Your task to perform on an android device: check battery use Image 0: 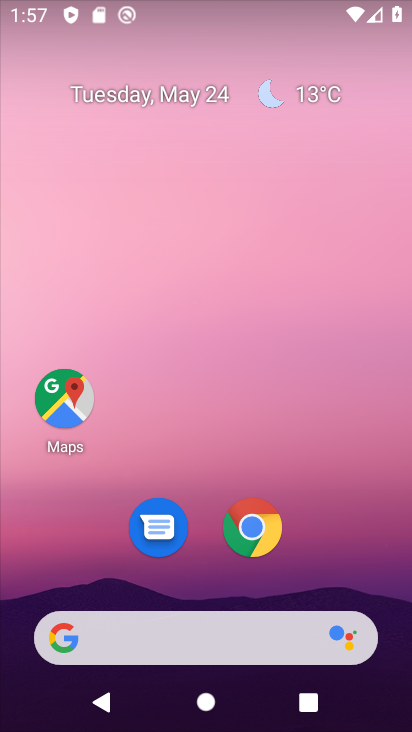
Step 0: drag from (300, 591) to (311, 69)
Your task to perform on an android device: check battery use Image 1: 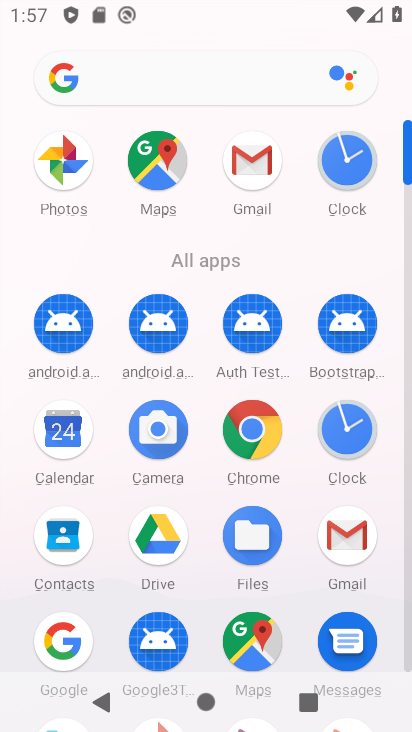
Step 1: drag from (215, 593) to (251, 359)
Your task to perform on an android device: check battery use Image 2: 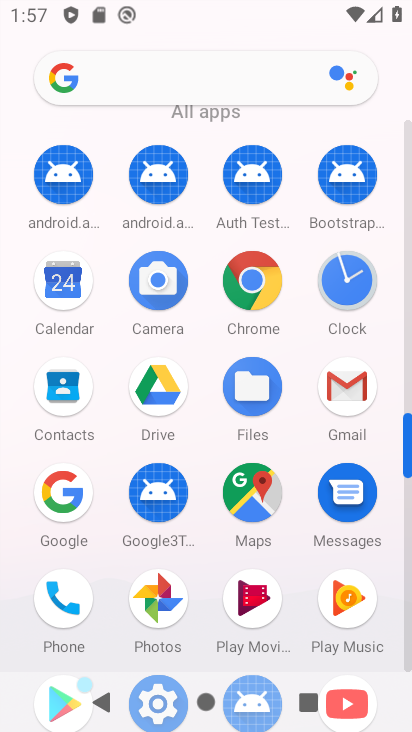
Step 2: drag from (188, 634) to (223, 372)
Your task to perform on an android device: check battery use Image 3: 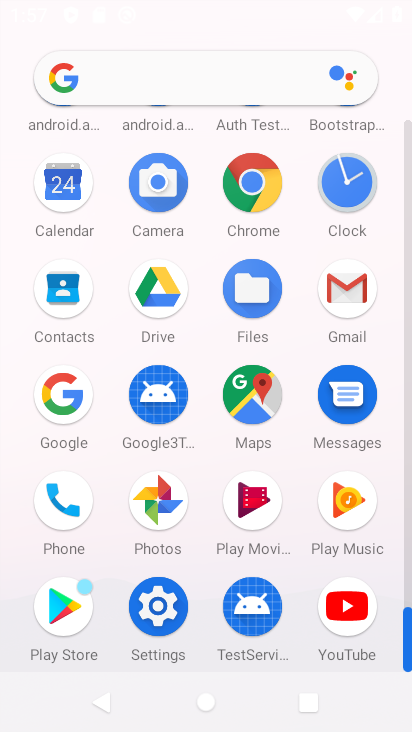
Step 3: click (164, 608)
Your task to perform on an android device: check battery use Image 4: 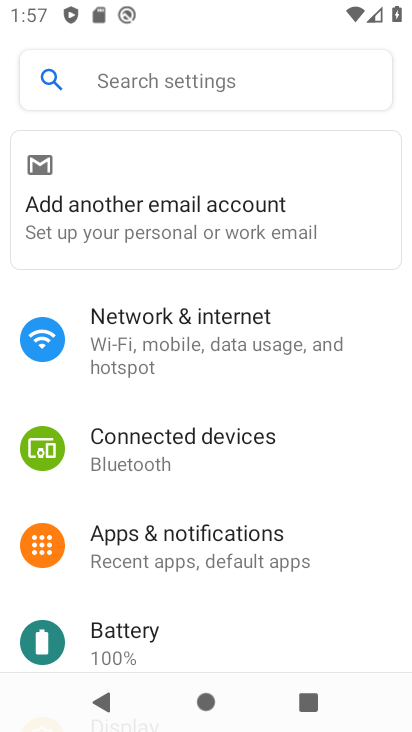
Step 4: click (185, 626)
Your task to perform on an android device: check battery use Image 5: 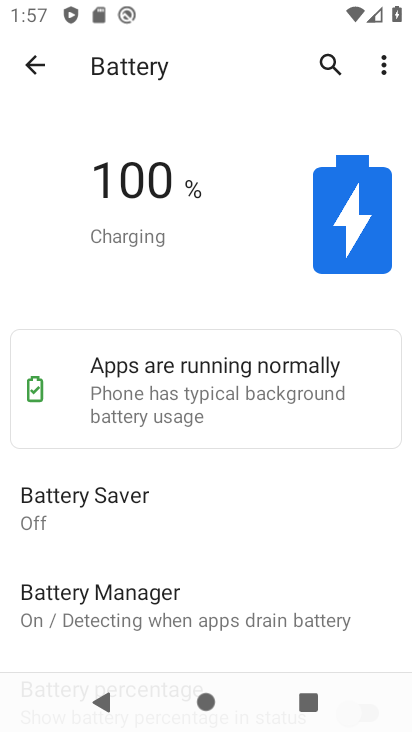
Step 5: click (383, 70)
Your task to perform on an android device: check battery use Image 6: 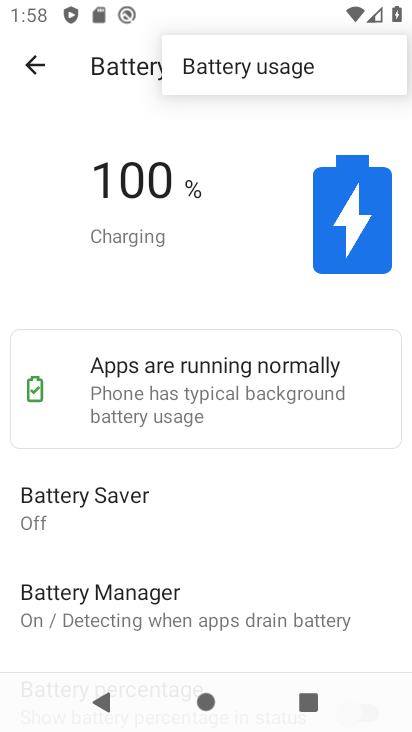
Step 6: drag from (149, 589) to (169, 453)
Your task to perform on an android device: check battery use Image 7: 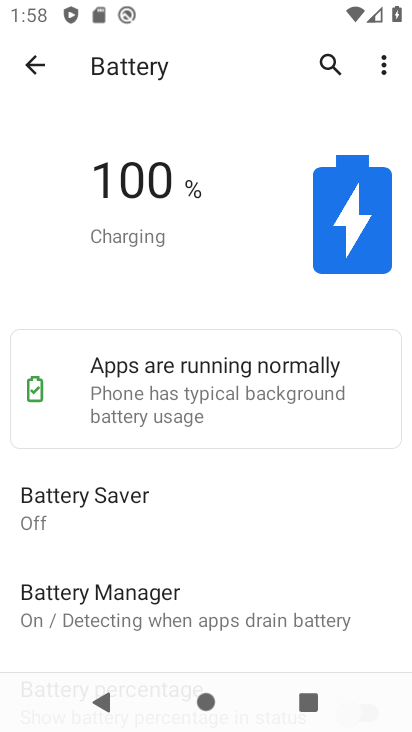
Step 7: click (386, 64)
Your task to perform on an android device: check battery use Image 8: 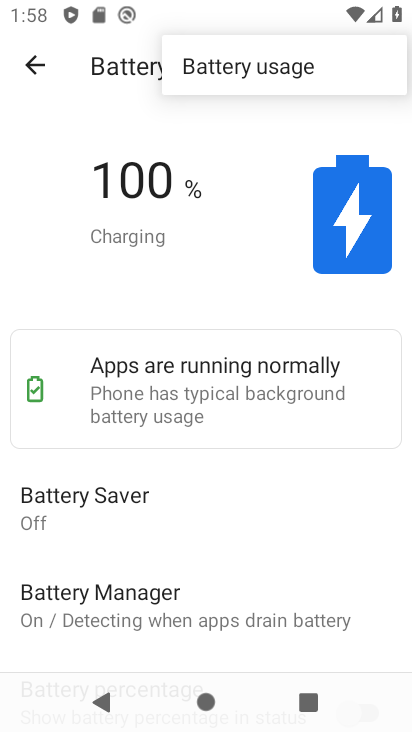
Step 8: click (386, 64)
Your task to perform on an android device: check battery use Image 9: 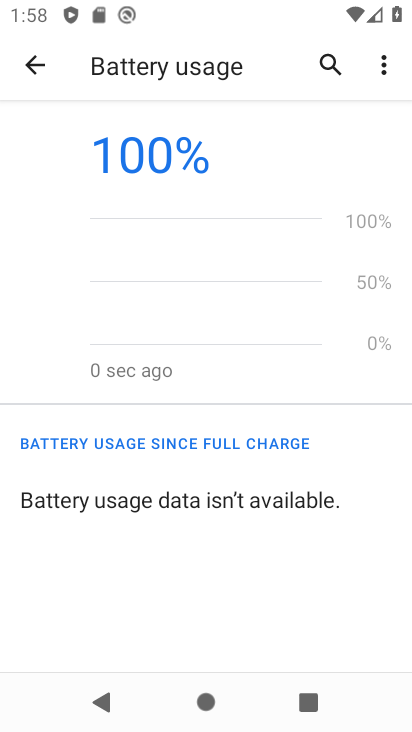
Step 9: task complete